Your task to perform on an android device: move an email to a new category in the gmail app Image 0: 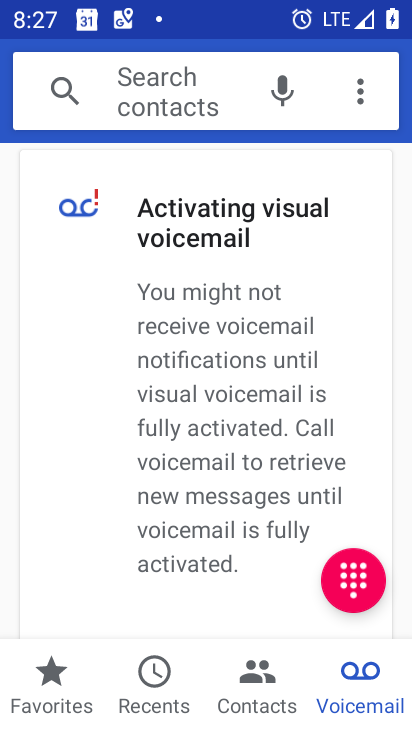
Step 0: press home button
Your task to perform on an android device: move an email to a new category in the gmail app Image 1: 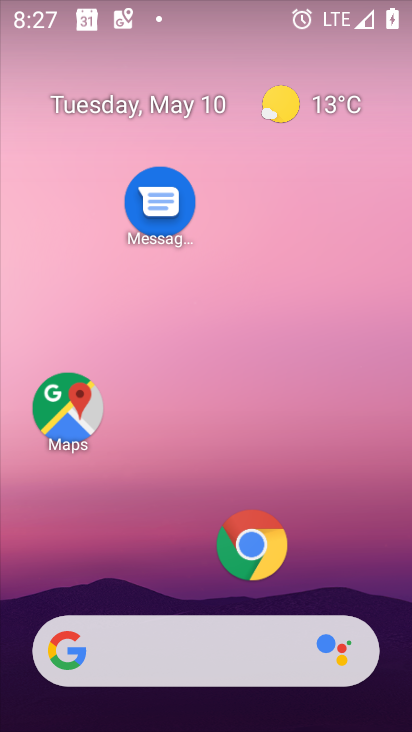
Step 1: drag from (201, 584) to (197, 7)
Your task to perform on an android device: move an email to a new category in the gmail app Image 2: 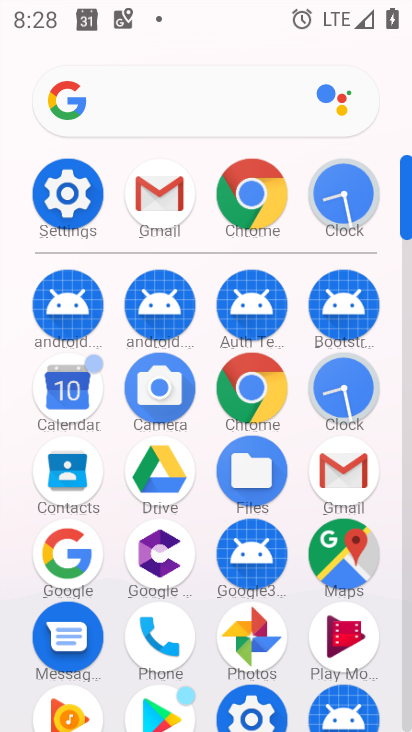
Step 2: click (158, 188)
Your task to perform on an android device: move an email to a new category in the gmail app Image 3: 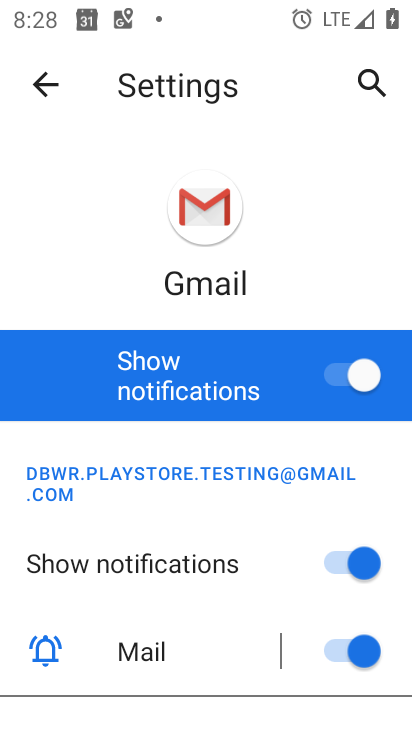
Step 3: click (51, 74)
Your task to perform on an android device: move an email to a new category in the gmail app Image 4: 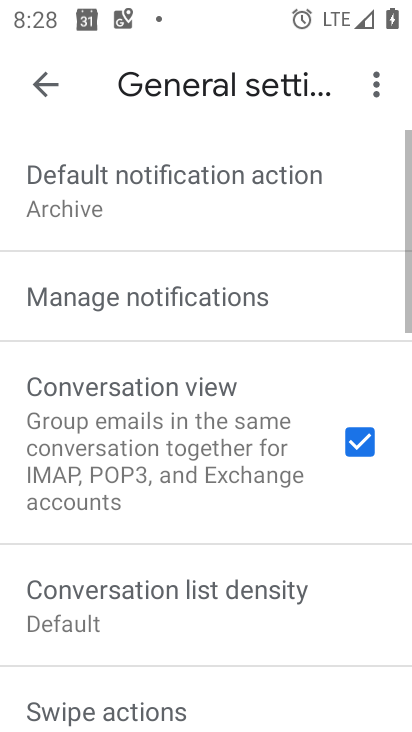
Step 4: click (49, 88)
Your task to perform on an android device: move an email to a new category in the gmail app Image 5: 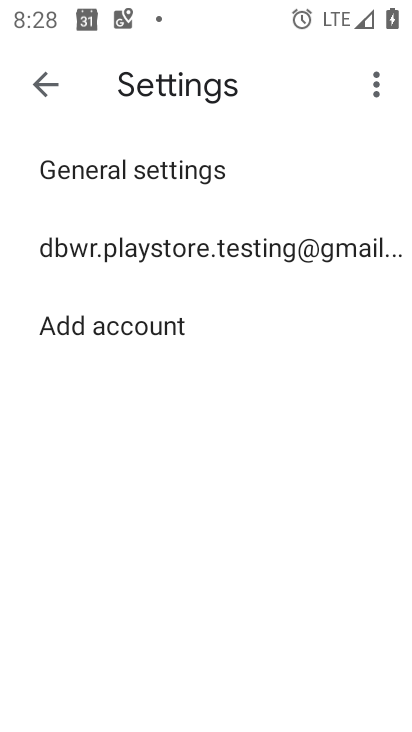
Step 5: click (49, 88)
Your task to perform on an android device: move an email to a new category in the gmail app Image 6: 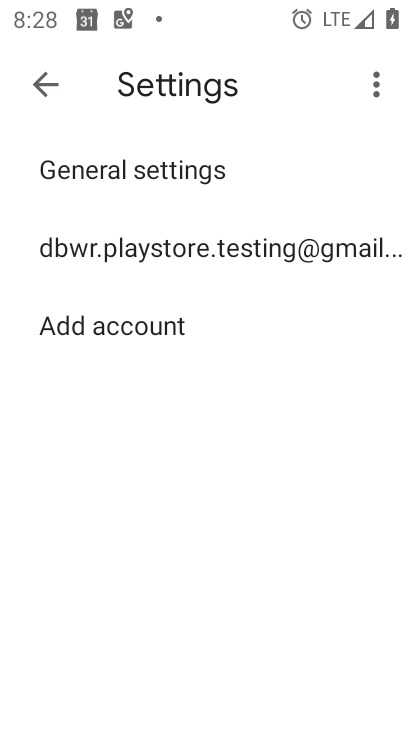
Step 6: click (54, 92)
Your task to perform on an android device: move an email to a new category in the gmail app Image 7: 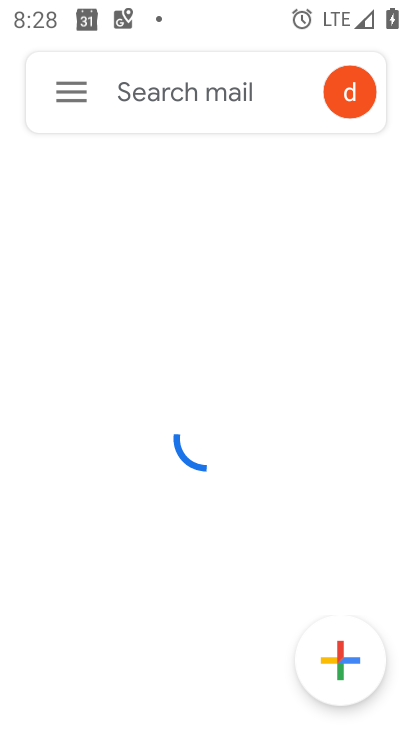
Step 7: click (70, 86)
Your task to perform on an android device: move an email to a new category in the gmail app Image 8: 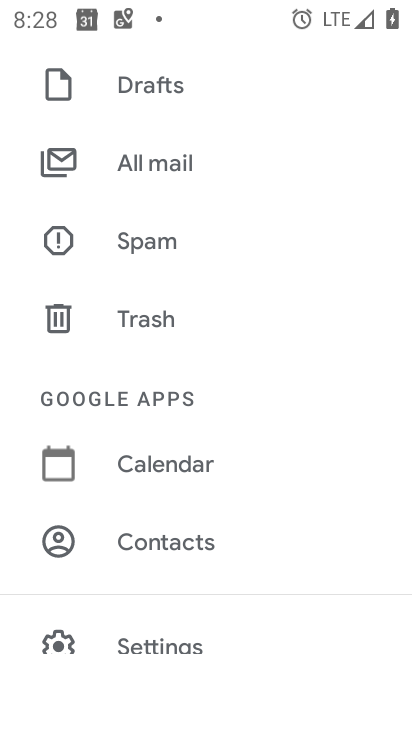
Step 8: task complete